Your task to perform on an android device: Go to sound settings Image 0: 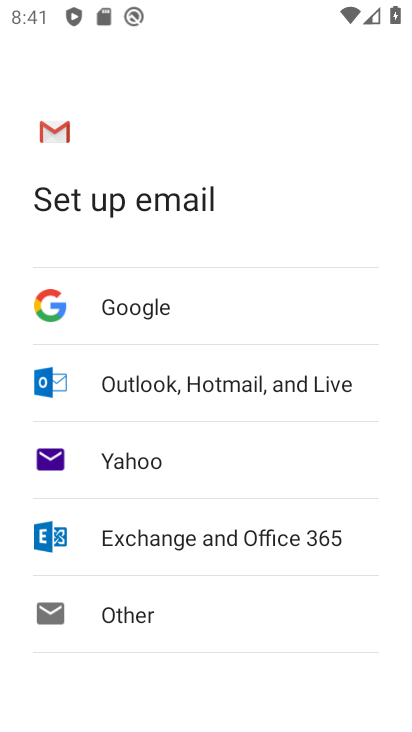
Step 0: press home button
Your task to perform on an android device: Go to sound settings Image 1: 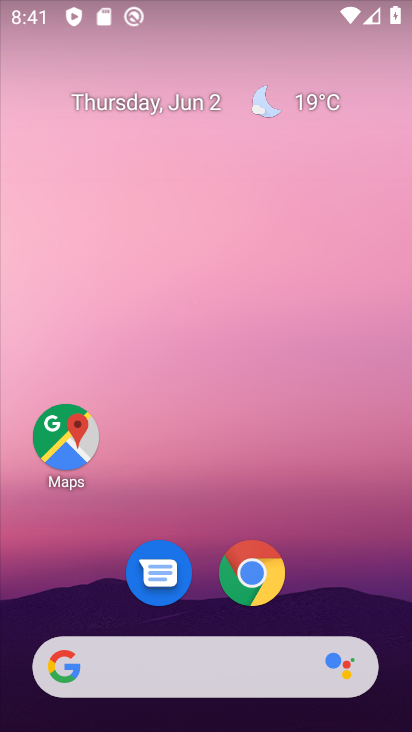
Step 1: drag from (322, 584) to (251, 33)
Your task to perform on an android device: Go to sound settings Image 2: 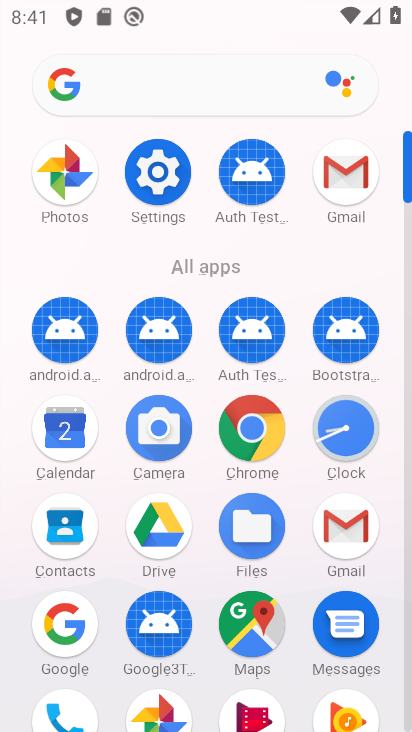
Step 2: click (154, 186)
Your task to perform on an android device: Go to sound settings Image 3: 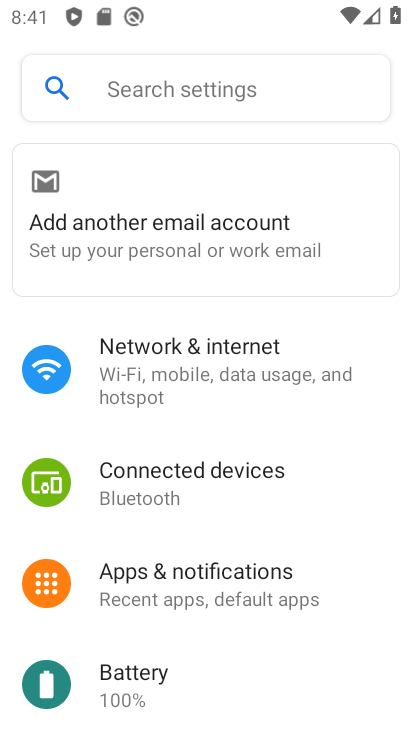
Step 3: drag from (71, 559) to (47, 136)
Your task to perform on an android device: Go to sound settings Image 4: 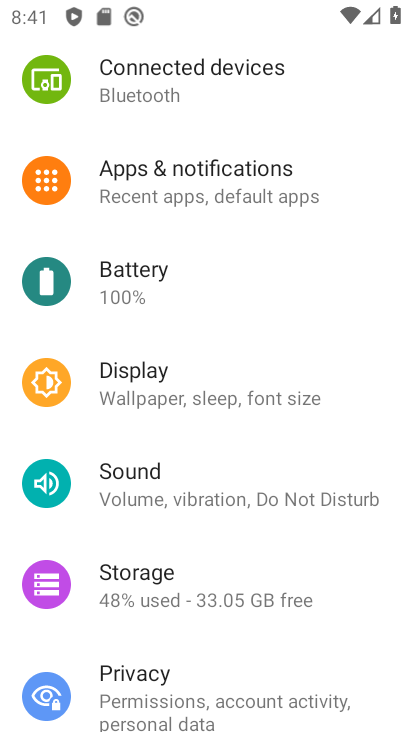
Step 4: click (190, 486)
Your task to perform on an android device: Go to sound settings Image 5: 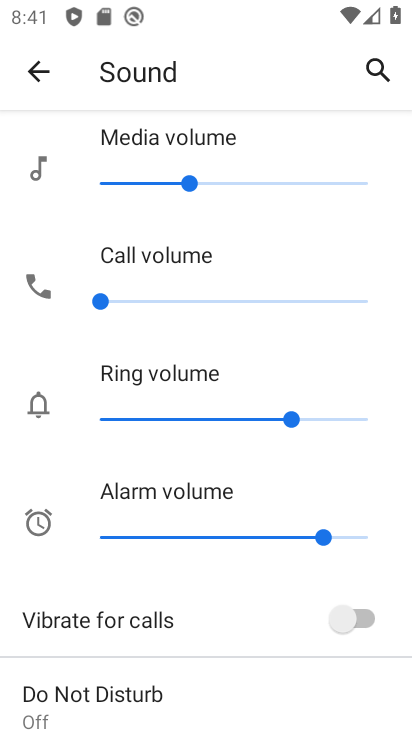
Step 5: task complete